Your task to perform on an android device: turn on improve location accuracy Image 0: 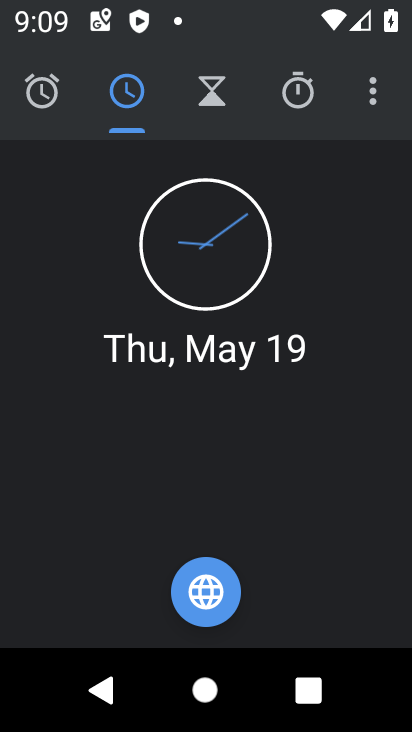
Step 0: press home button
Your task to perform on an android device: turn on improve location accuracy Image 1: 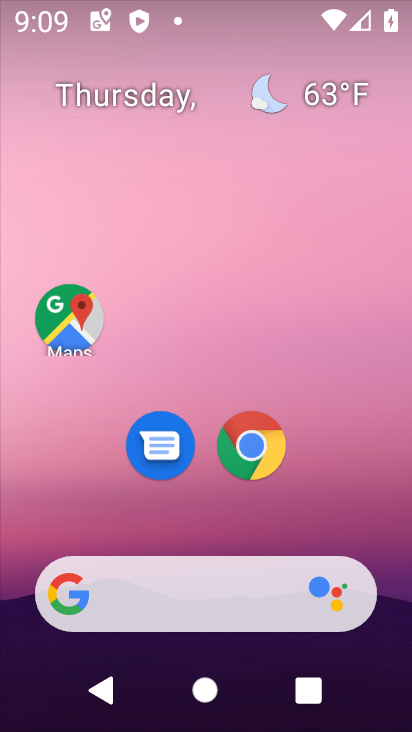
Step 1: drag from (211, 525) to (191, 98)
Your task to perform on an android device: turn on improve location accuracy Image 2: 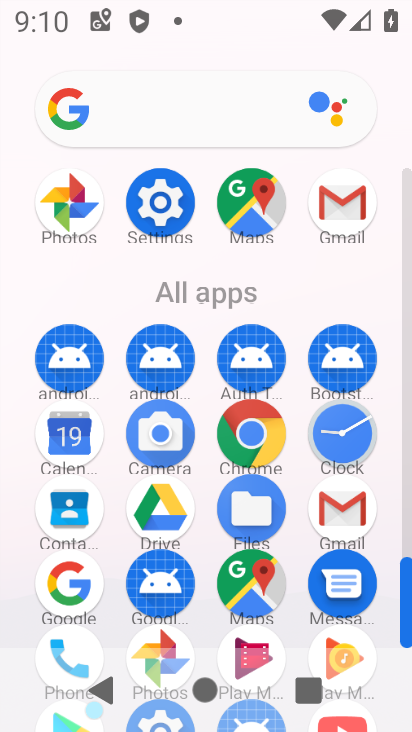
Step 2: drag from (203, 278) to (216, 86)
Your task to perform on an android device: turn on improve location accuracy Image 3: 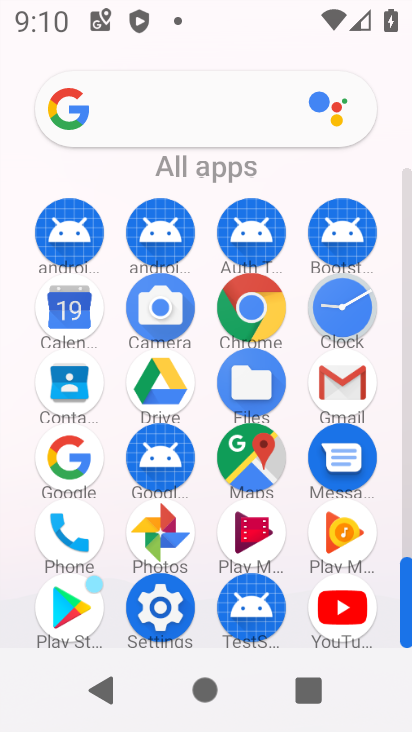
Step 3: click (140, 615)
Your task to perform on an android device: turn on improve location accuracy Image 4: 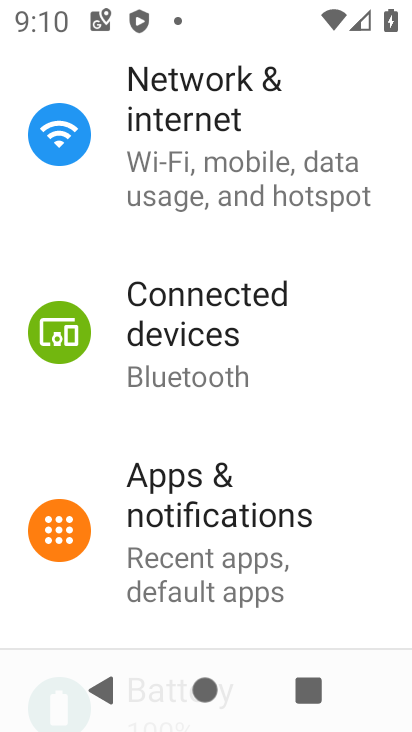
Step 4: drag from (232, 504) to (245, 198)
Your task to perform on an android device: turn on improve location accuracy Image 5: 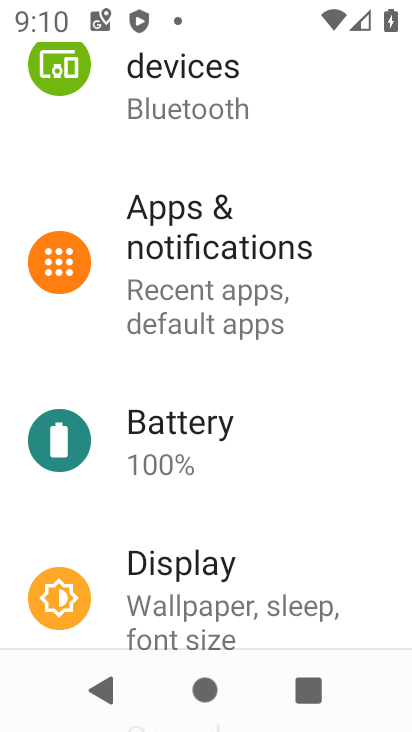
Step 5: drag from (227, 535) to (276, 116)
Your task to perform on an android device: turn on improve location accuracy Image 6: 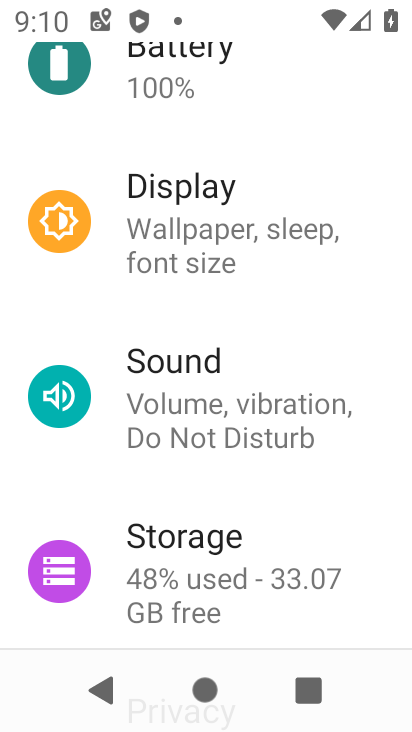
Step 6: drag from (215, 530) to (217, 170)
Your task to perform on an android device: turn on improve location accuracy Image 7: 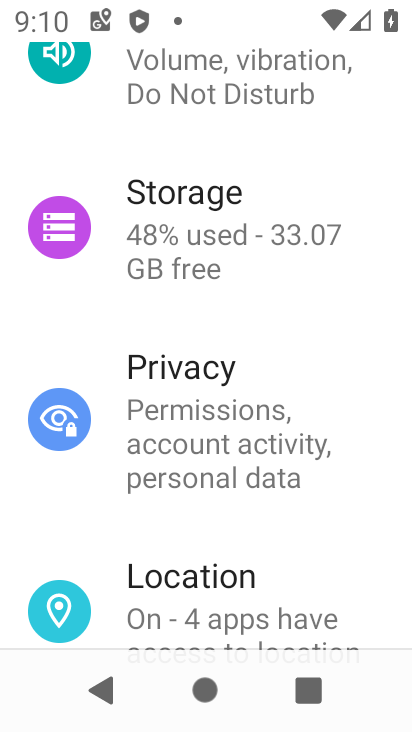
Step 7: click (159, 607)
Your task to perform on an android device: turn on improve location accuracy Image 8: 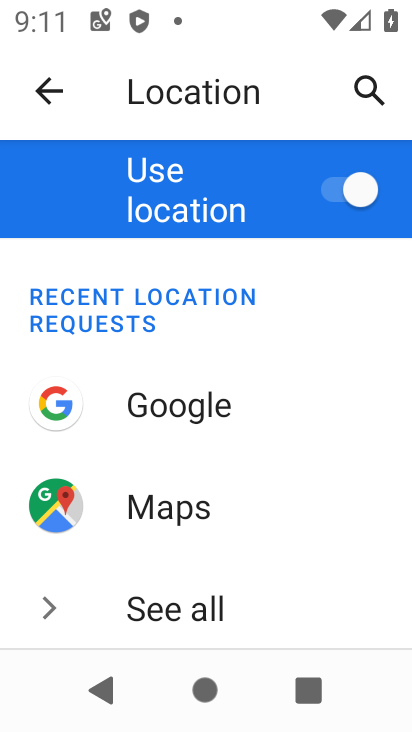
Step 8: drag from (258, 569) to (267, 249)
Your task to perform on an android device: turn on improve location accuracy Image 9: 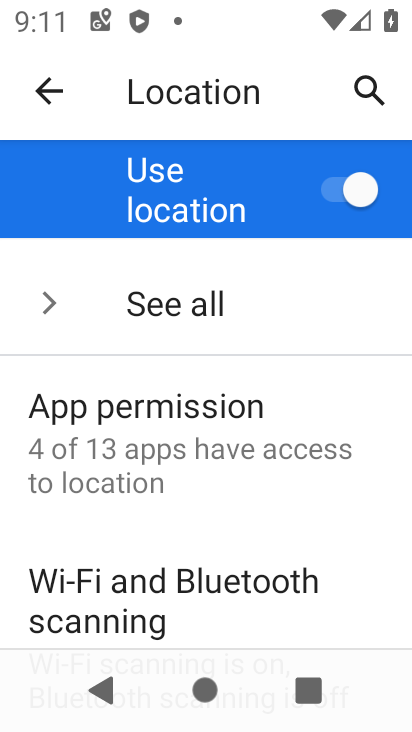
Step 9: drag from (227, 478) to (232, 54)
Your task to perform on an android device: turn on improve location accuracy Image 10: 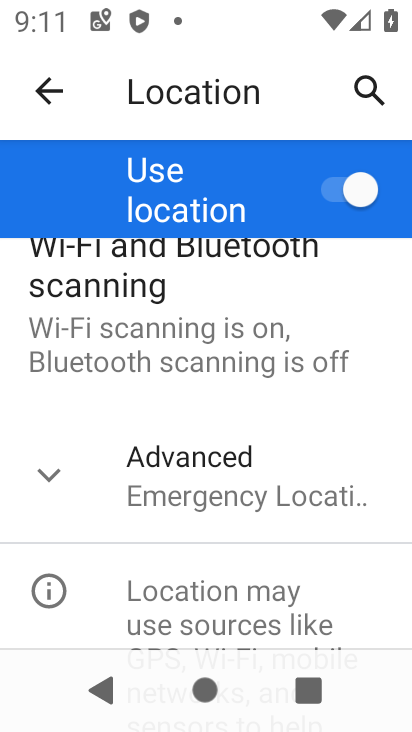
Step 10: click (230, 507)
Your task to perform on an android device: turn on improve location accuracy Image 11: 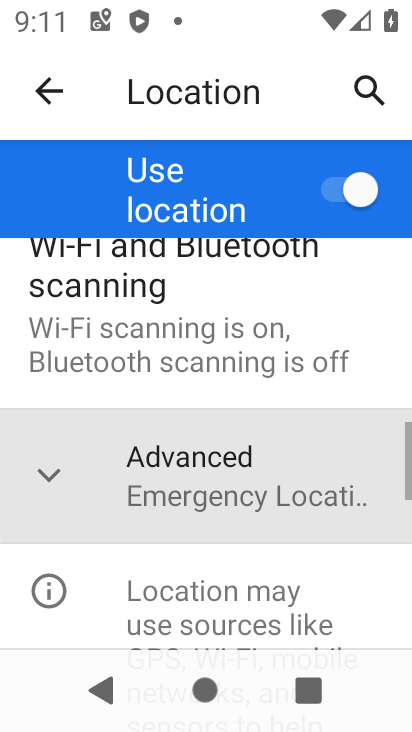
Step 11: task complete